Your task to perform on an android device: open a bookmark in the chrome app Image 0: 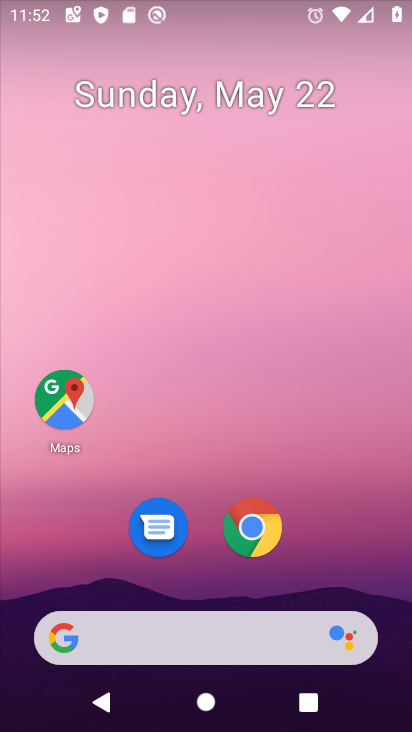
Step 0: click (261, 539)
Your task to perform on an android device: open a bookmark in the chrome app Image 1: 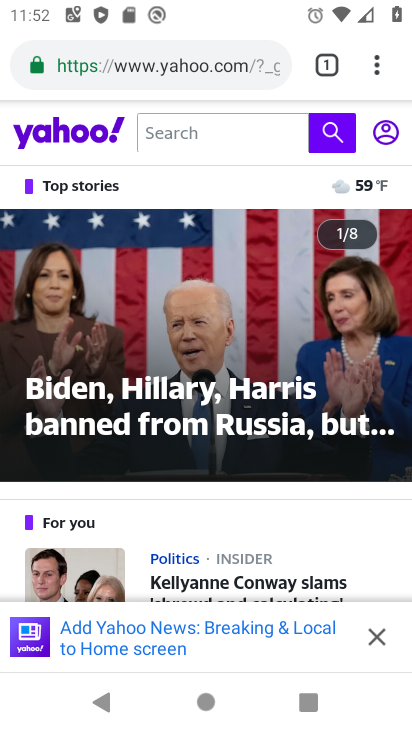
Step 1: click (386, 57)
Your task to perform on an android device: open a bookmark in the chrome app Image 2: 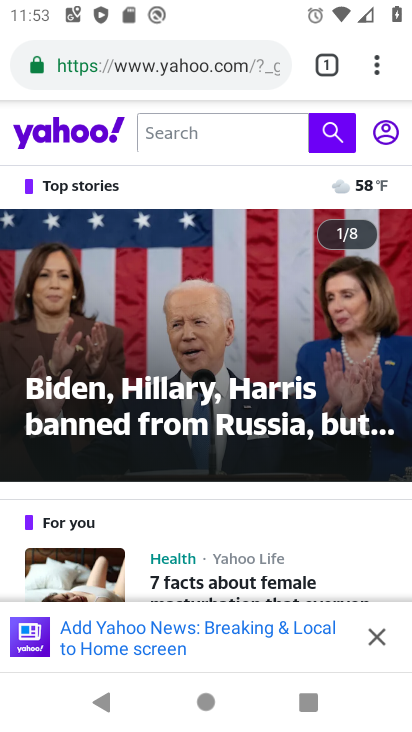
Step 2: task complete